Your task to perform on an android device: Search for Italian restaurants on Maps Image 0: 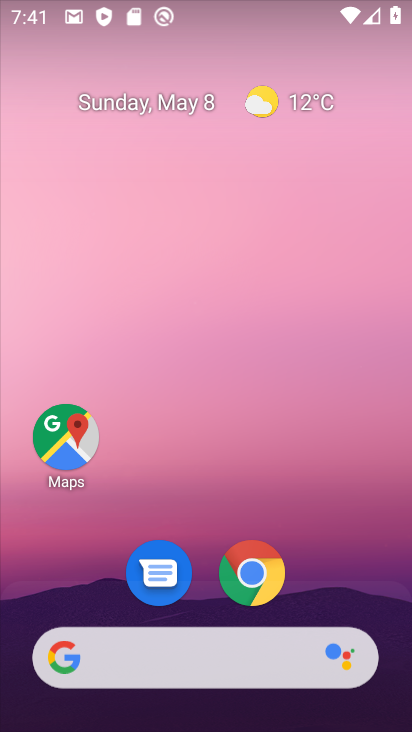
Step 0: click (67, 437)
Your task to perform on an android device: Search for Italian restaurants on Maps Image 1: 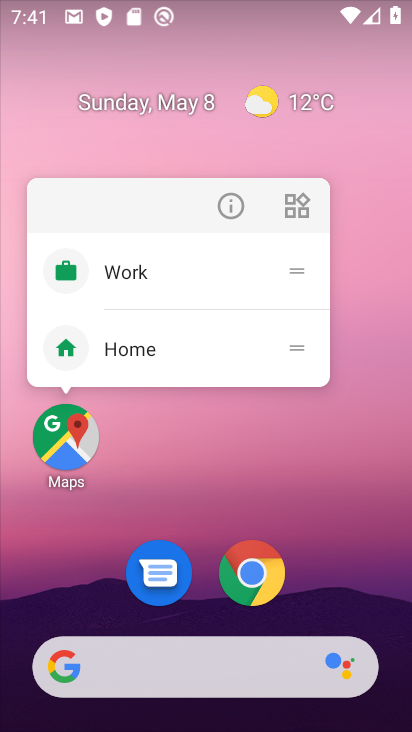
Step 1: click (51, 427)
Your task to perform on an android device: Search for Italian restaurants on Maps Image 2: 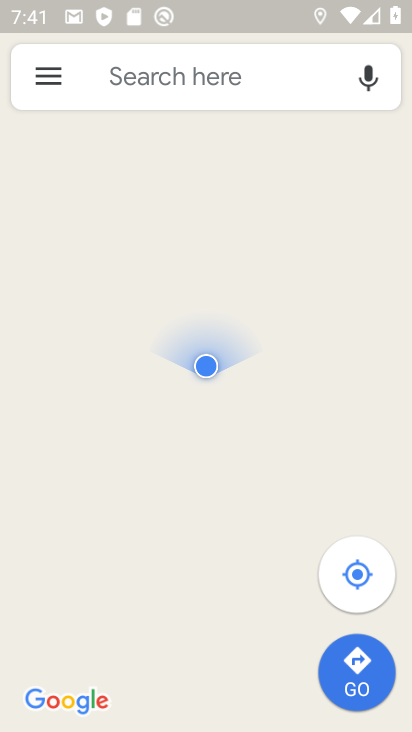
Step 2: click (98, 87)
Your task to perform on an android device: Search for Italian restaurants on Maps Image 3: 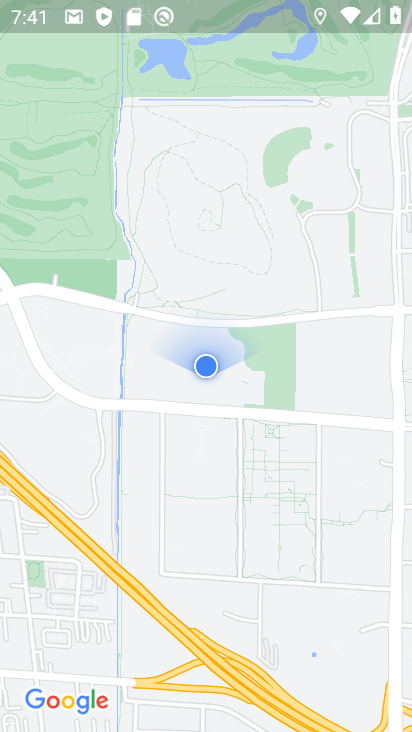
Step 3: click (119, 107)
Your task to perform on an android device: Search for Italian restaurants on Maps Image 4: 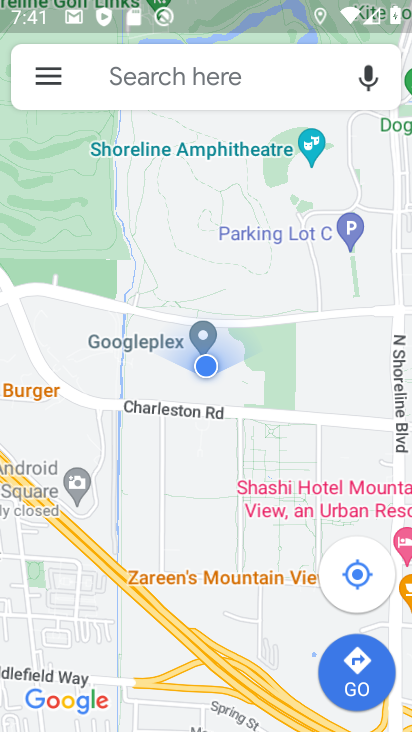
Step 4: click (116, 77)
Your task to perform on an android device: Search for Italian restaurants on Maps Image 5: 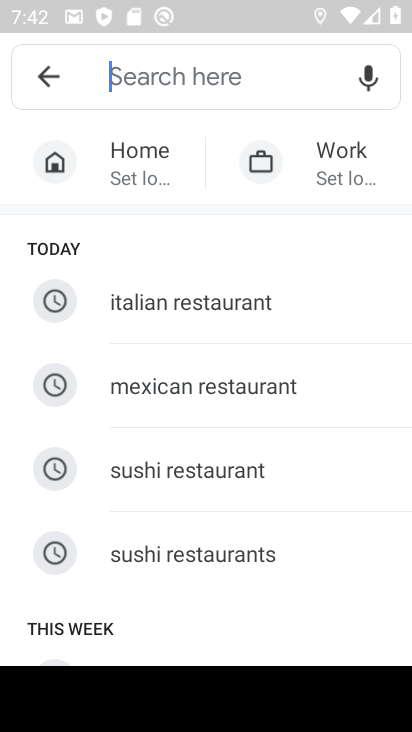
Step 5: type "italian restaurant"
Your task to perform on an android device: Search for Italian restaurants on Maps Image 6: 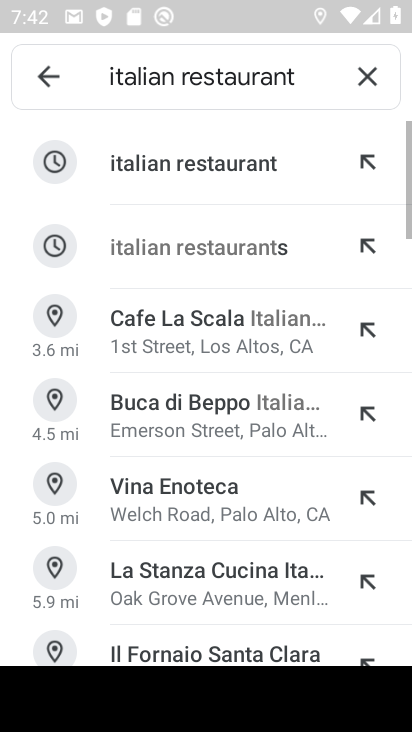
Step 6: click (232, 174)
Your task to perform on an android device: Search for Italian restaurants on Maps Image 7: 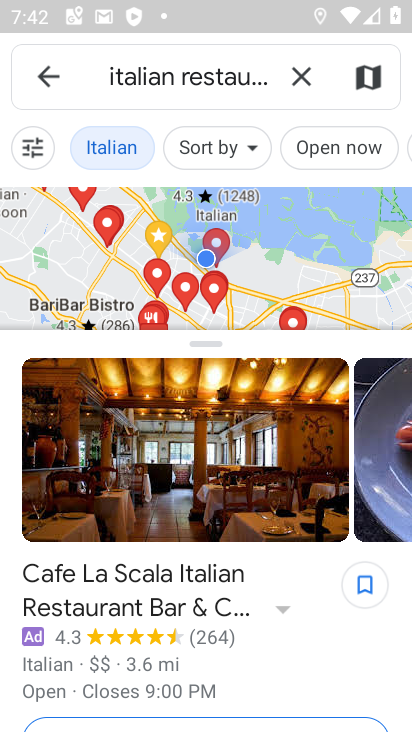
Step 7: task complete